Your task to perform on an android device: check android version Image 0: 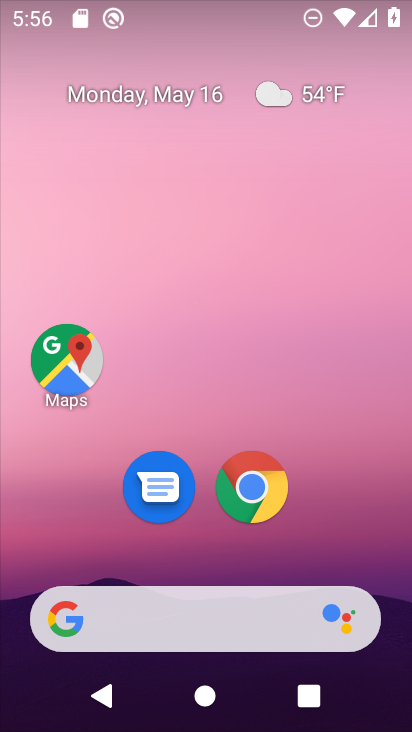
Step 0: drag from (201, 576) to (237, 68)
Your task to perform on an android device: check android version Image 1: 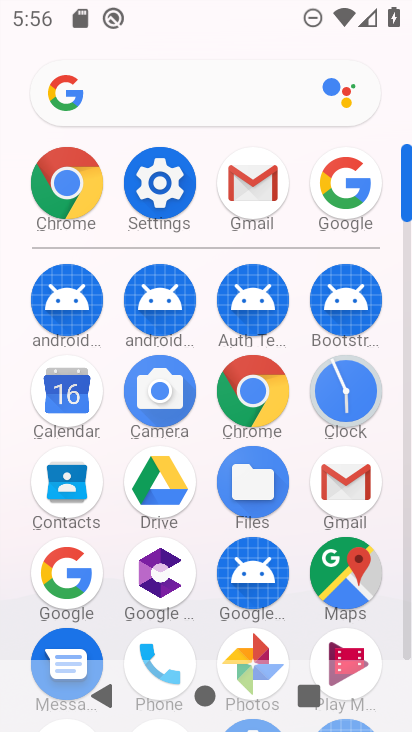
Step 1: click (149, 178)
Your task to perform on an android device: check android version Image 2: 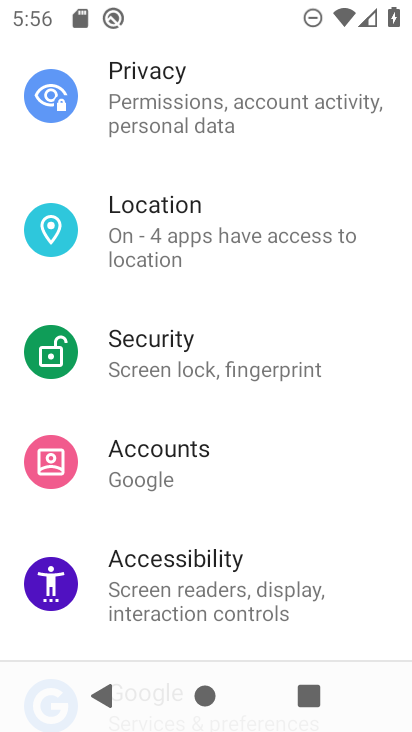
Step 2: drag from (191, 625) to (218, 232)
Your task to perform on an android device: check android version Image 3: 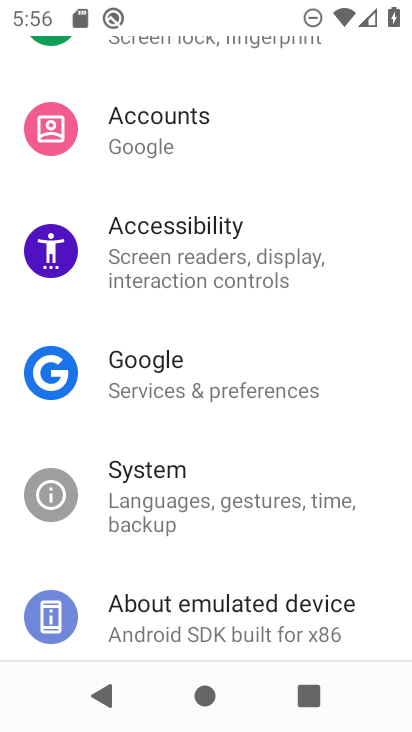
Step 3: drag from (241, 637) to (238, 325)
Your task to perform on an android device: check android version Image 4: 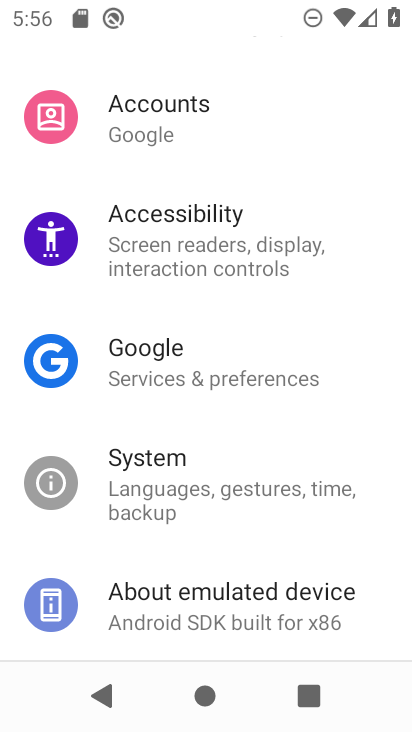
Step 4: click (212, 629)
Your task to perform on an android device: check android version Image 5: 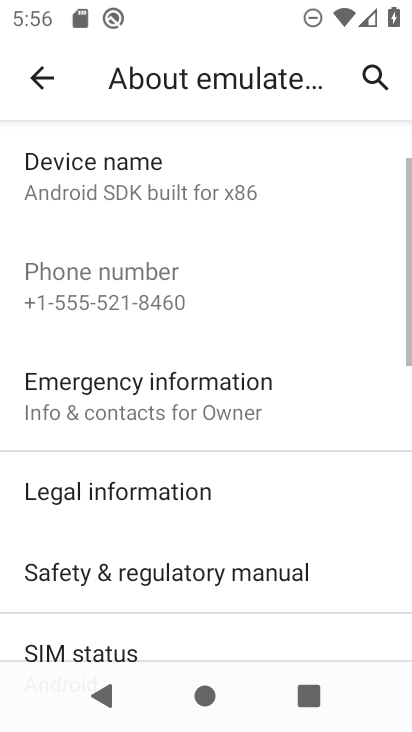
Step 5: task complete